Your task to perform on an android device: allow notifications from all sites in the chrome app Image 0: 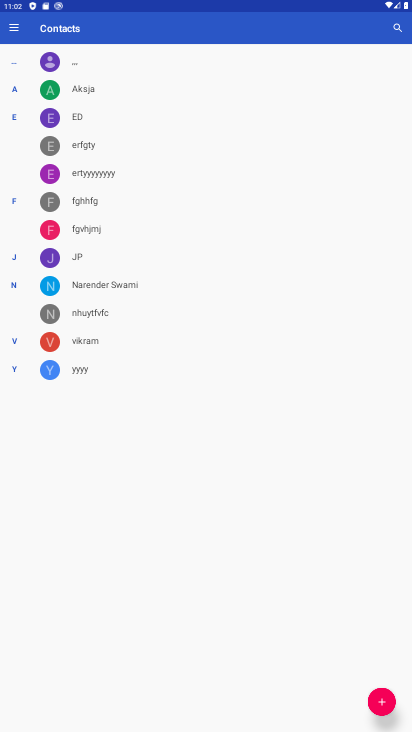
Step 0: press home button
Your task to perform on an android device: allow notifications from all sites in the chrome app Image 1: 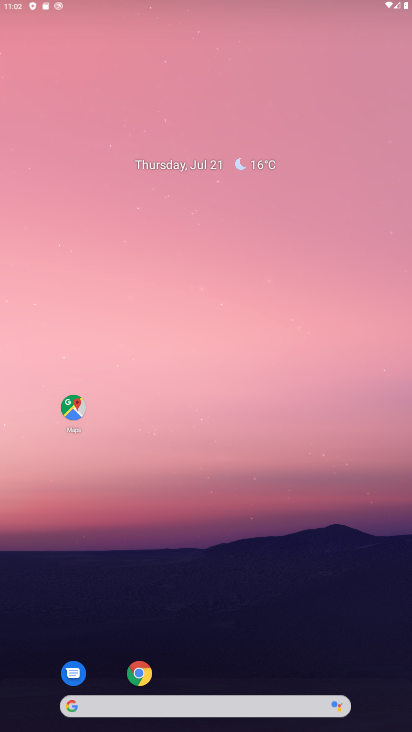
Step 1: drag from (257, 671) to (196, 6)
Your task to perform on an android device: allow notifications from all sites in the chrome app Image 2: 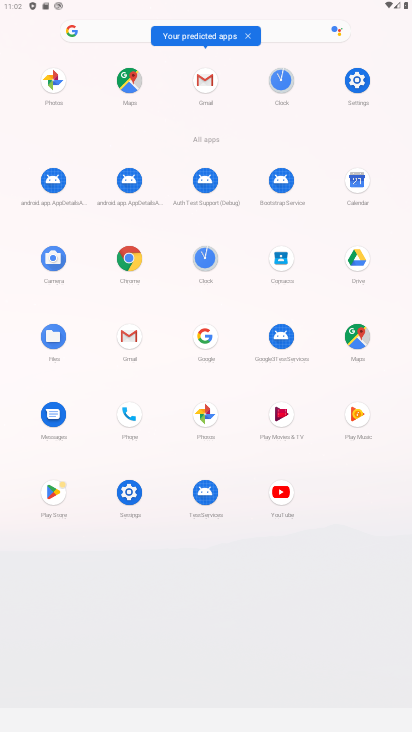
Step 2: click (130, 242)
Your task to perform on an android device: allow notifications from all sites in the chrome app Image 3: 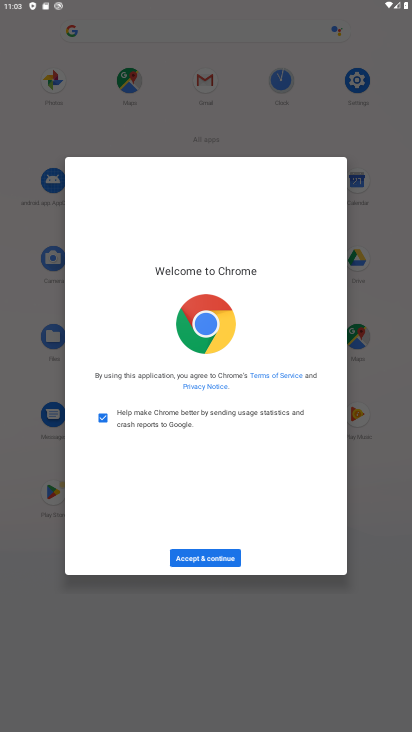
Step 3: click (204, 550)
Your task to perform on an android device: allow notifications from all sites in the chrome app Image 4: 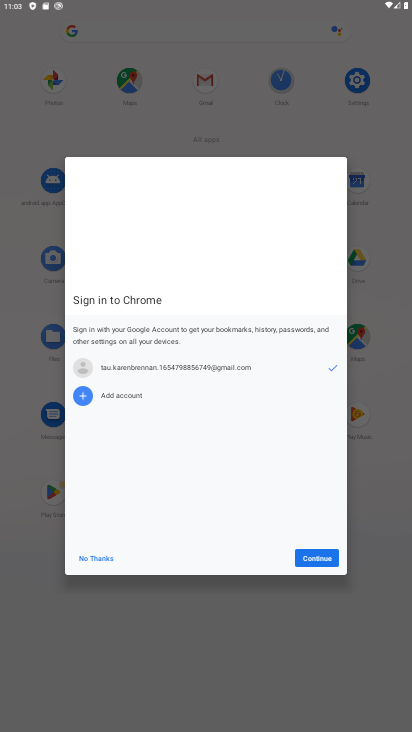
Step 4: click (106, 551)
Your task to perform on an android device: allow notifications from all sites in the chrome app Image 5: 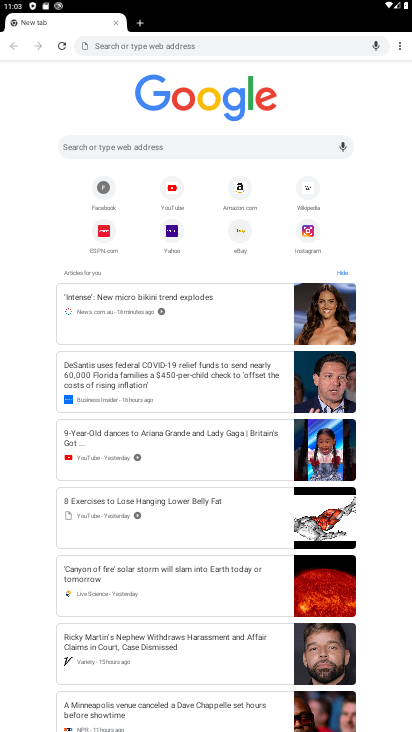
Step 5: drag from (402, 40) to (297, 218)
Your task to perform on an android device: allow notifications from all sites in the chrome app Image 6: 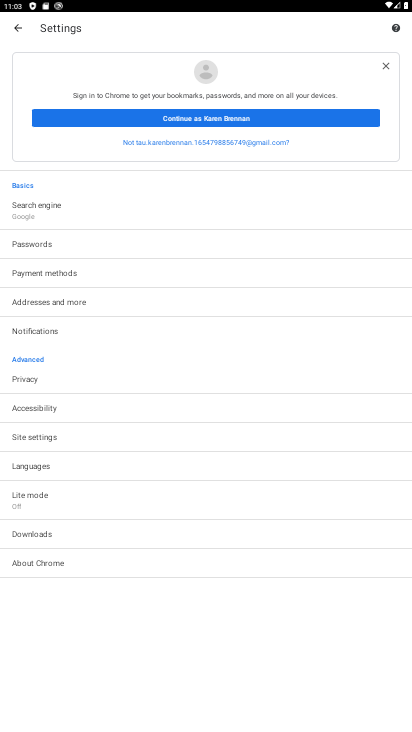
Step 6: click (47, 436)
Your task to perform on an android device: allow notifications from all sites in the chrome app Image 7: 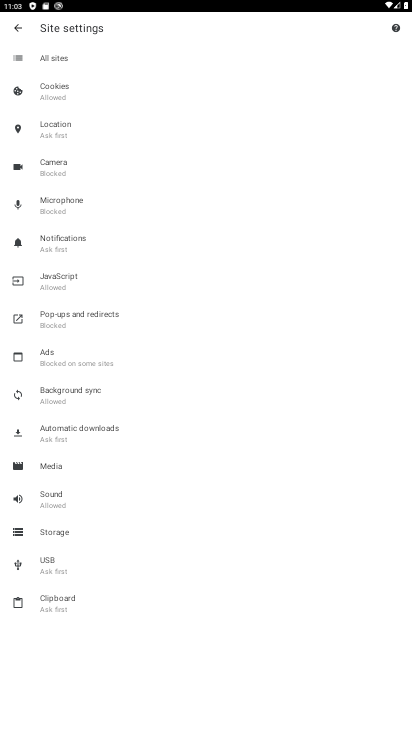
Step 7: click (60, 243)
Your task to perform on an android device: allow notifications from all sites in the chrome app Image 8: 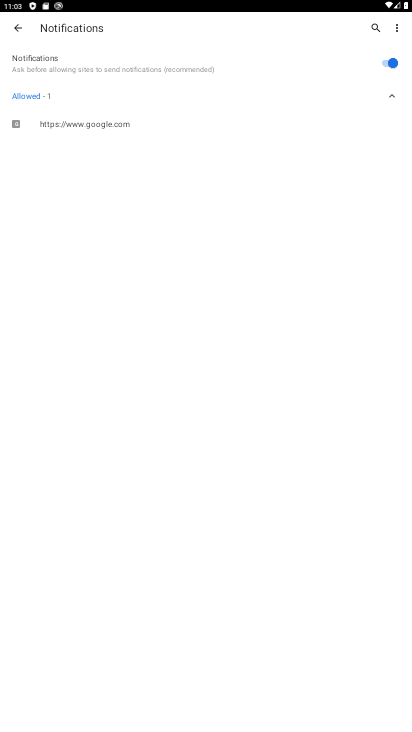
Step 8: task complete